Your task to perform on an android device: turn off translation in the chrome app Image 0: 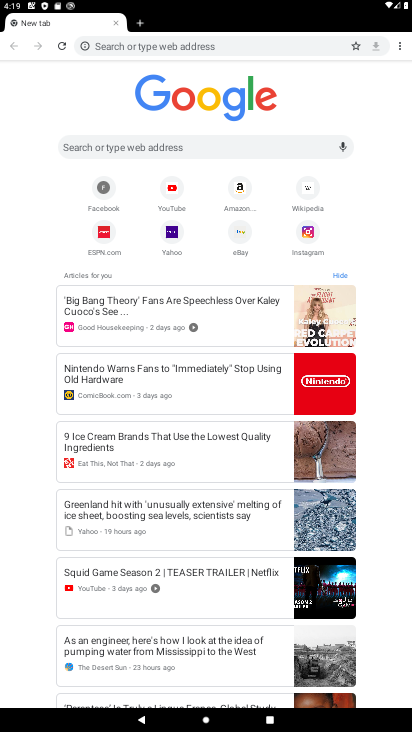
Step 0: drag from (400, 49) to (325, 222)
Your task to perform on an android device: turn off translation in the chrome app Image 1: 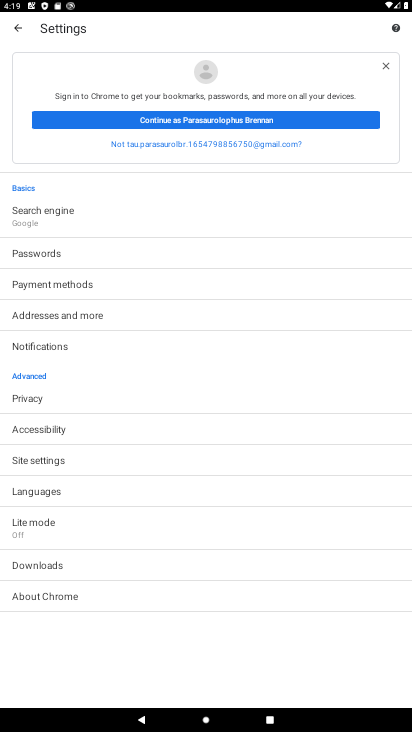
Step 1: click (67, 495)
Your task to perform on an android device: turn off translation in the chrome app Image 2: 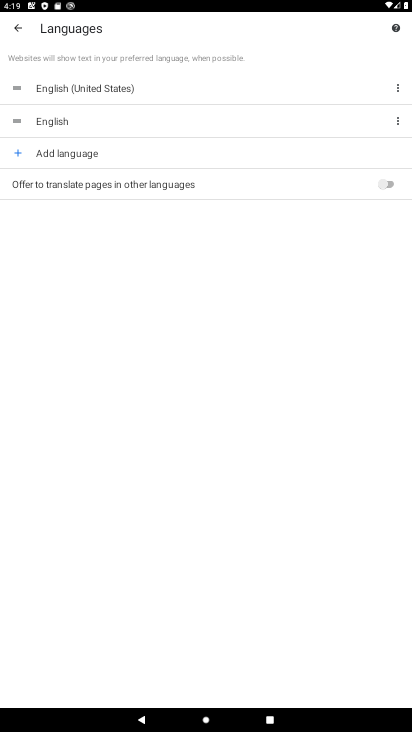
Step 2: task complete